Your task to perform on an android device: toggle javascript in the chrome app Image 0: 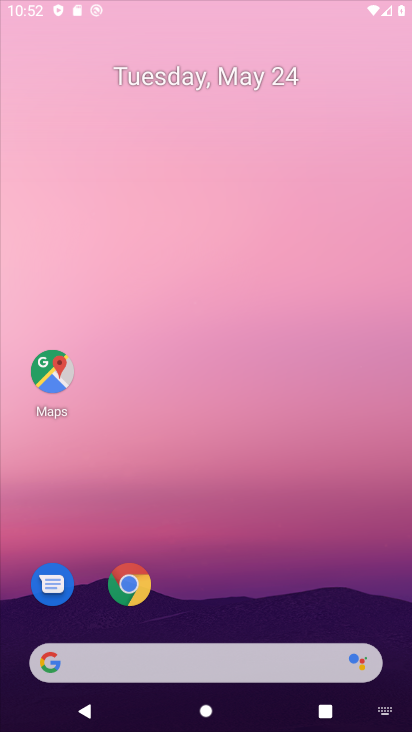
Step 0: press home button
Your task to perform on an android device: toggle javascript in the chrome app Image 1: 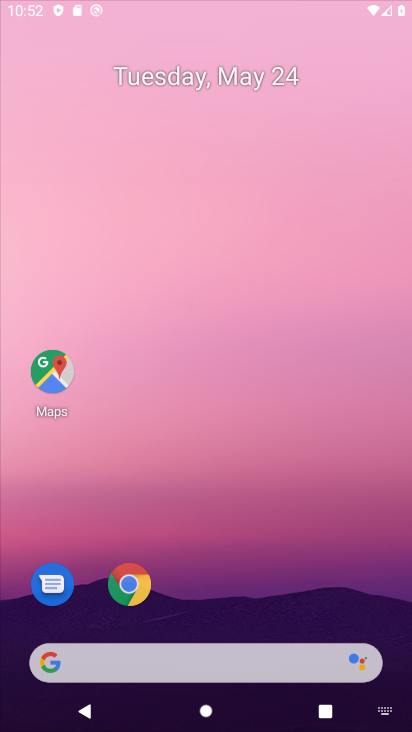
Step 1: click (258, 189)
Your task to perform on an android device: toggle javascript in the chrome app Image 2: 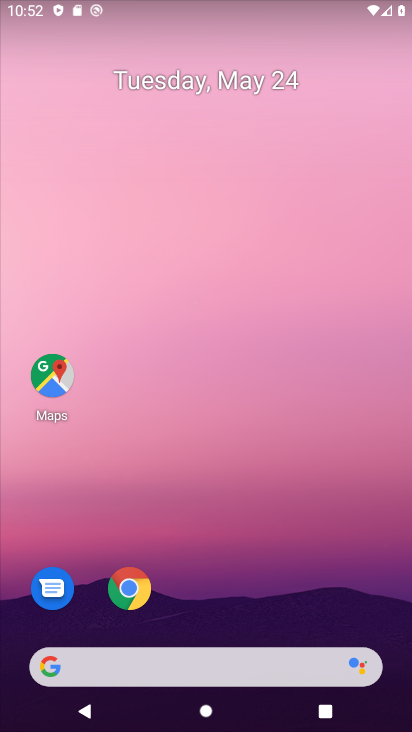
Step 2: click (128, 582)
Your task to perform on an android device: toggle javascript in the chrome app Image 3: 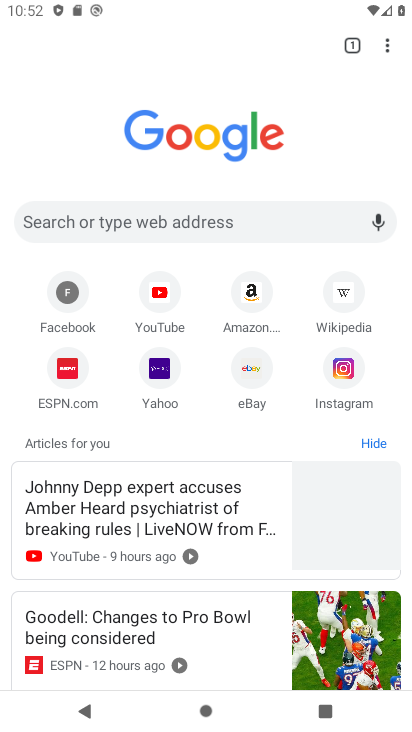
Step 3: click (385, 44)
Your task to perform on an android device: toggle javascript in the chrome app Image 4: 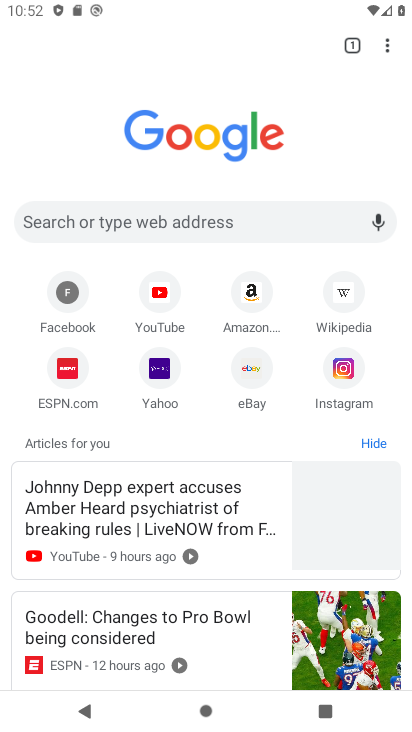
Step 4: click (387, 44)
Your task to perform on an android device: toggle javascript in the chrome app Image 5: 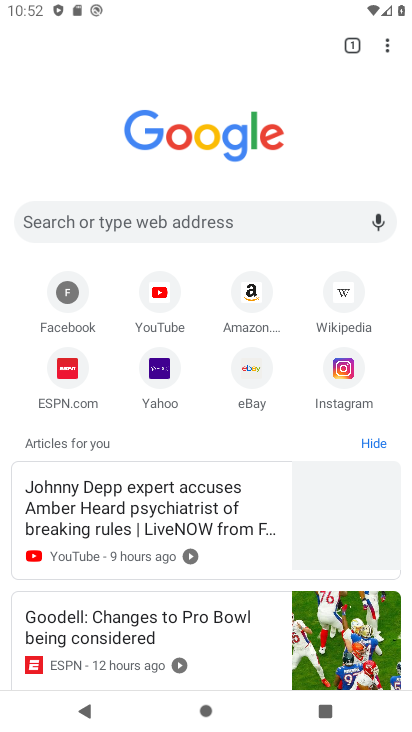
Step 5: click (383, 40)
Your task to perform on an android device: toggle javascript in the chrome app Image 6: 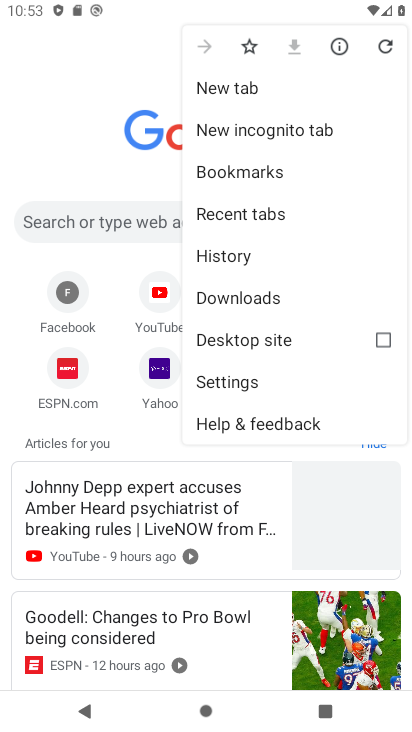
Step 6: click (269, 381)
Your task to perform on an android device: toggle javascript in the chrome app Image 7: 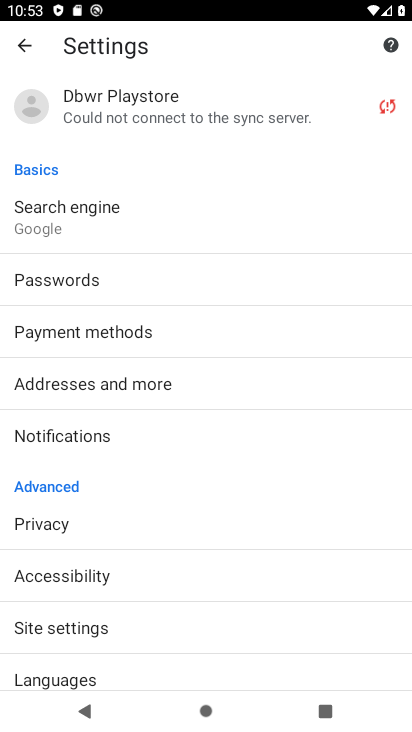
Step 7: click (151, 622)
Your task to perform on an android device: toggle javascript in the chrome app Image 8: 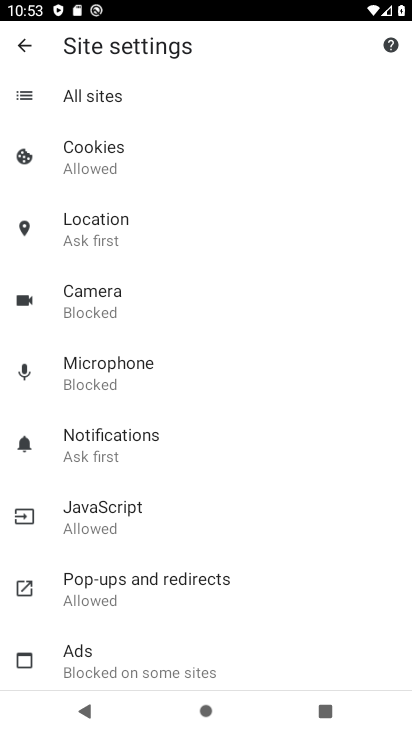
Step 8: click (148, 520)
Your task to perform on an android device: toggle javascript in the chrome app Image 9: 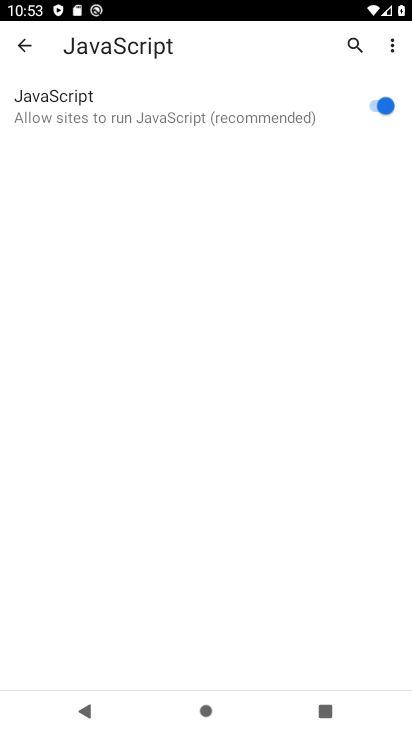
Step 9: click (376, 99)
Your task to perform on an android device: toggle javascript in the chrome app Image 10: 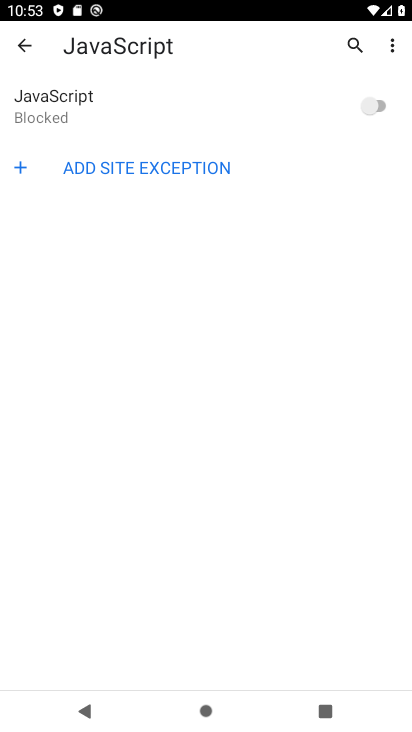
Step 10: task complete